Your task to perform on an android device: turn off sleep mode Image 0: 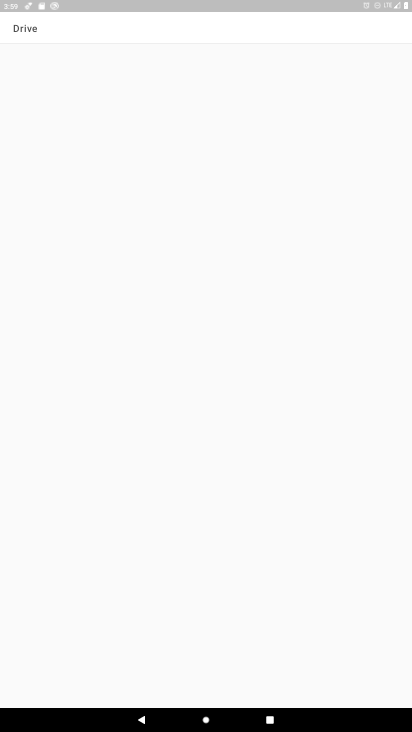
Step 0: press home button
Your task to perform on an android device: turn off sleep mode Image 1: 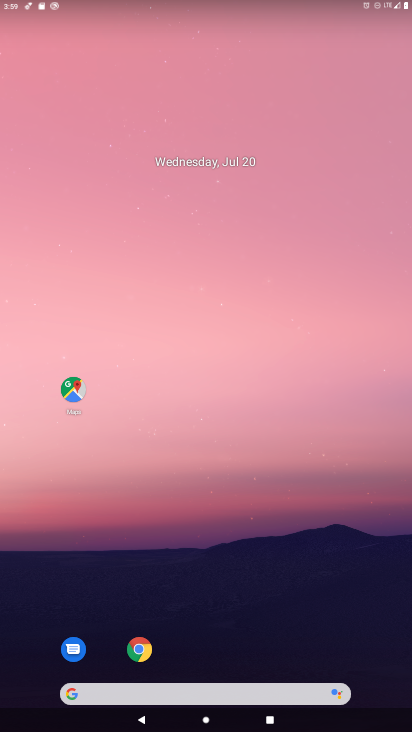
Step 1: drag from (167, 689) to (265, 193)
Your task to perform on an android device: turn off sleep mode Image 2: 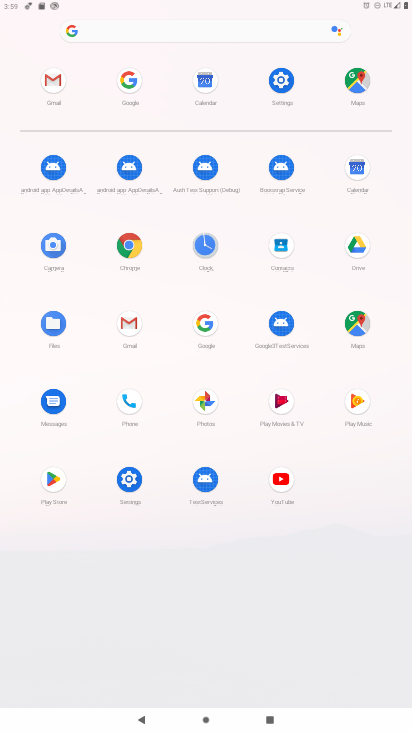
Step 2: click (129, 479)
Your task to perform on an android device: turn off sleep mode Image 3: 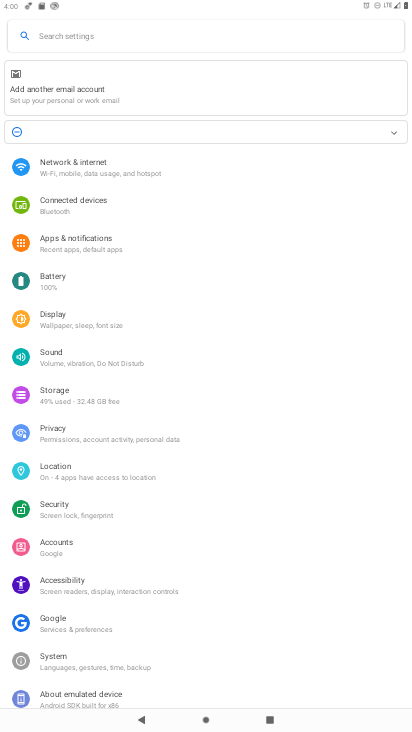
Step 3: click (91, 329)
Your task to perform on an android device: turn off sleep mode Image 4: 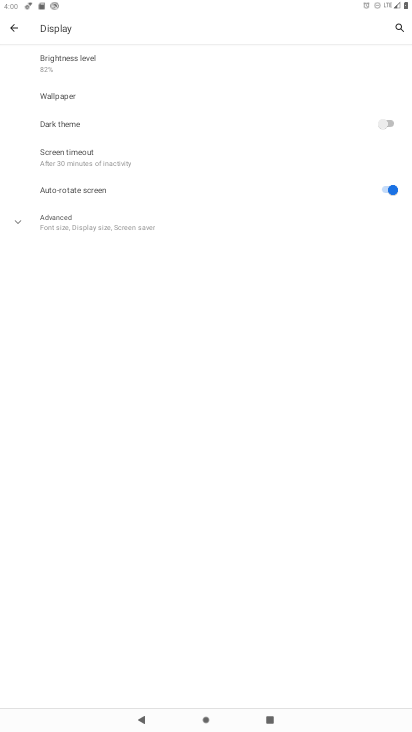
Step 4: click (92, 152)
Your task to perform on an android device: turn off sleep mode Image 5: 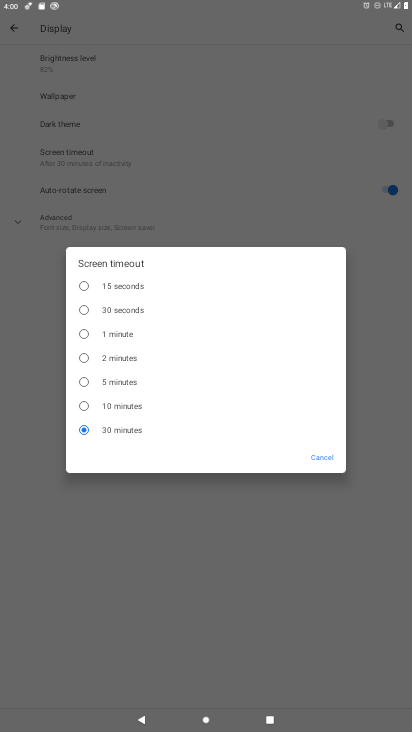
Step 5: click (336, 454)
Your task to perform on an android device: turn off sleep mode Image 6: 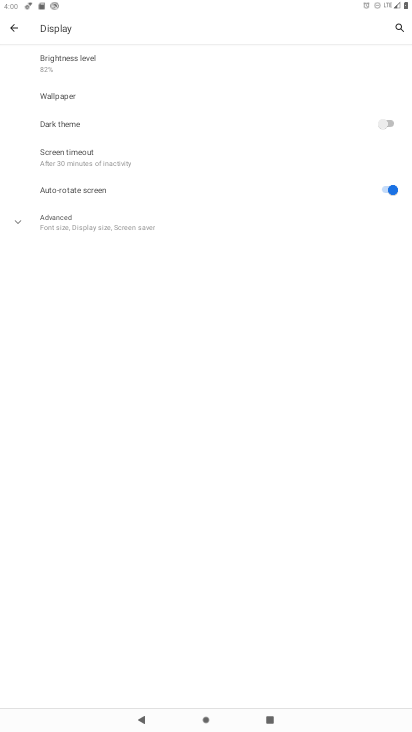
Step 6: task complete